Your task to perform on an android device: Search for vegetarian restaurants on Maps Image 0: 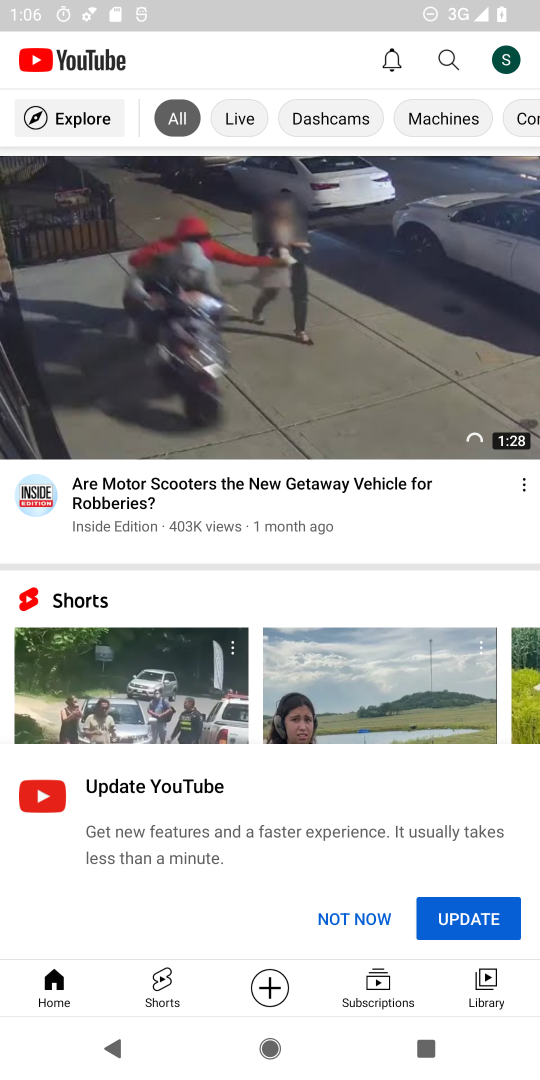
Step 0: press home button
Your task to perform on an android device: Search for vegetarian restaurants on Maps Image 1: 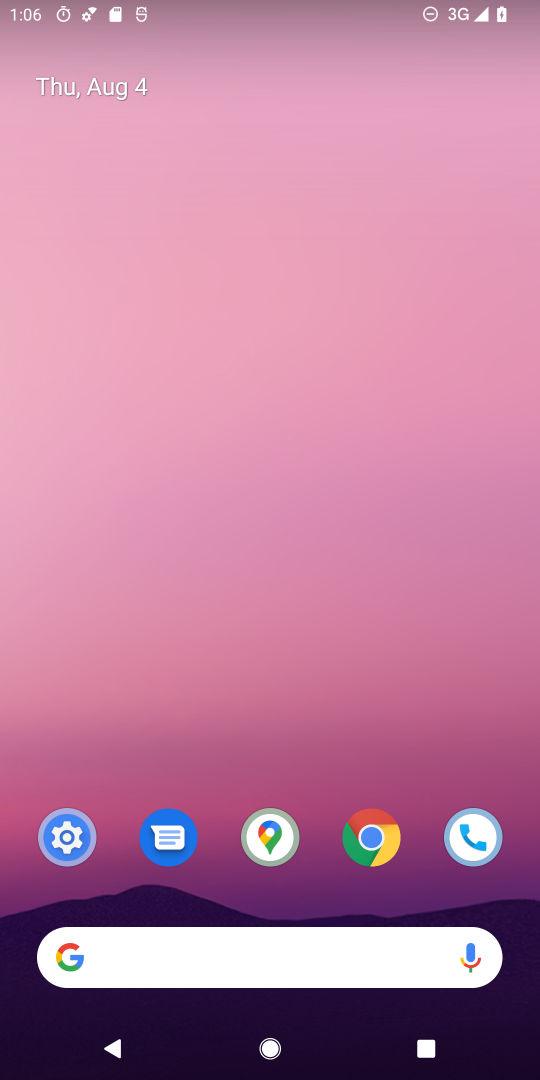
Step 1: drag from (480, 890) to (221, 66)
Your task to perform on an android device: Search for vegetarian restaurants on Maps Image 2: 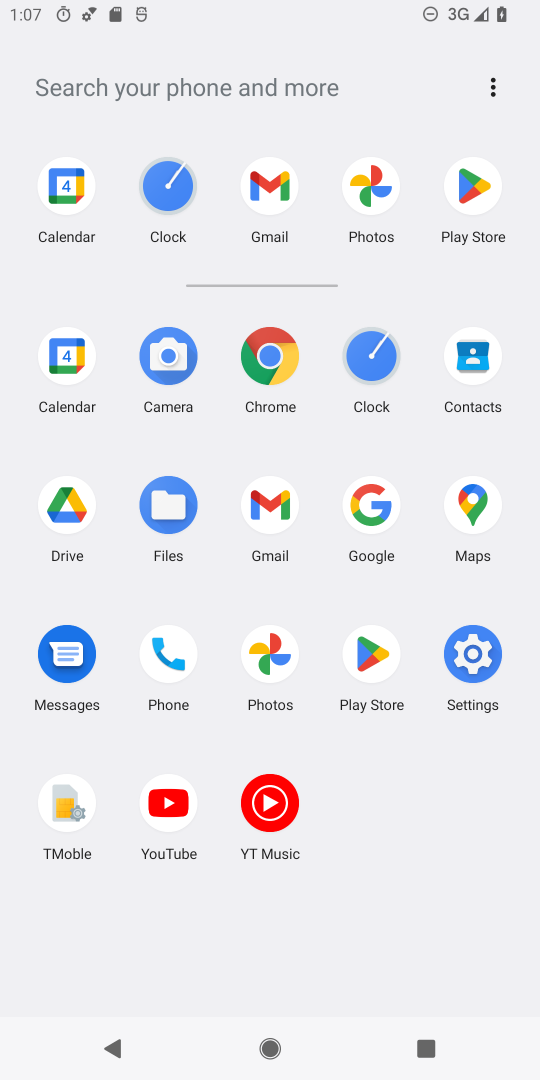
Step 2: click (485, 509)
Your task to perform on an android device: Search for vegetarian restaurants on Maps Image 3: 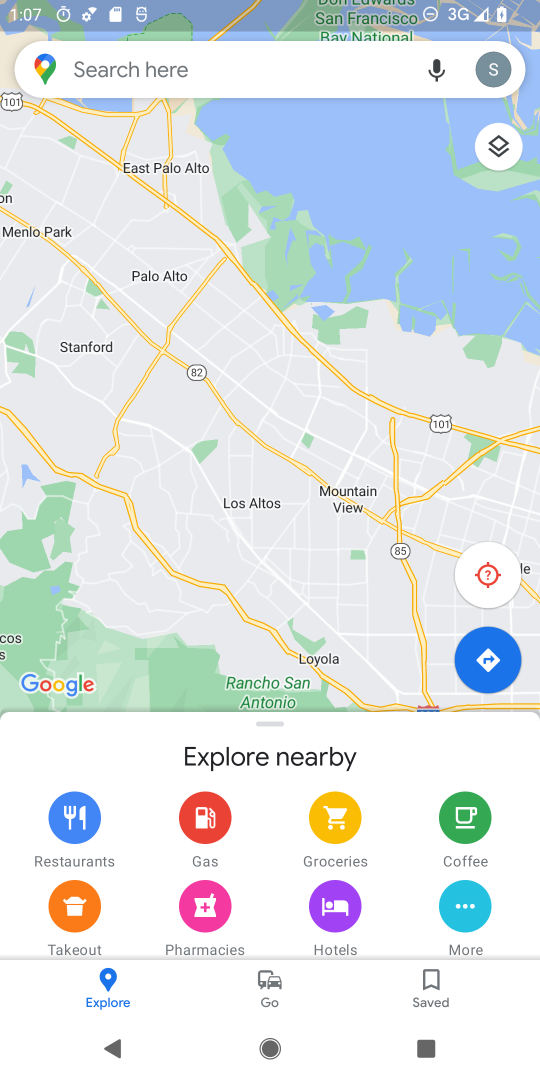
Step 3: click (180, 72)
Your task to perform on an android device: Search for vegetarian restaurants on Maps Image 4: 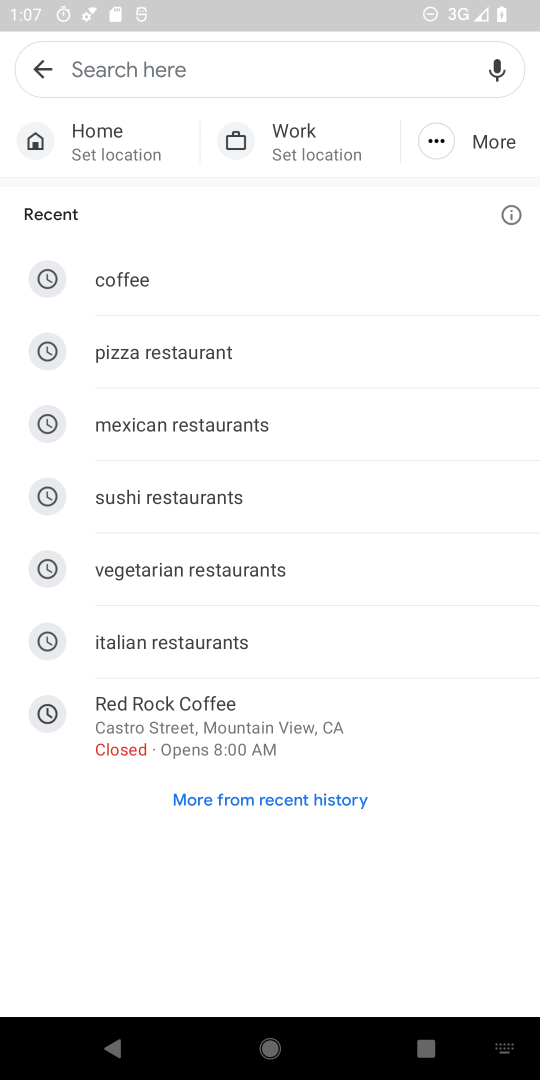
Step 4: click (177, 570)
Your task to perform on an android device: Search for vegetarian restaurants on Maps Image 5: 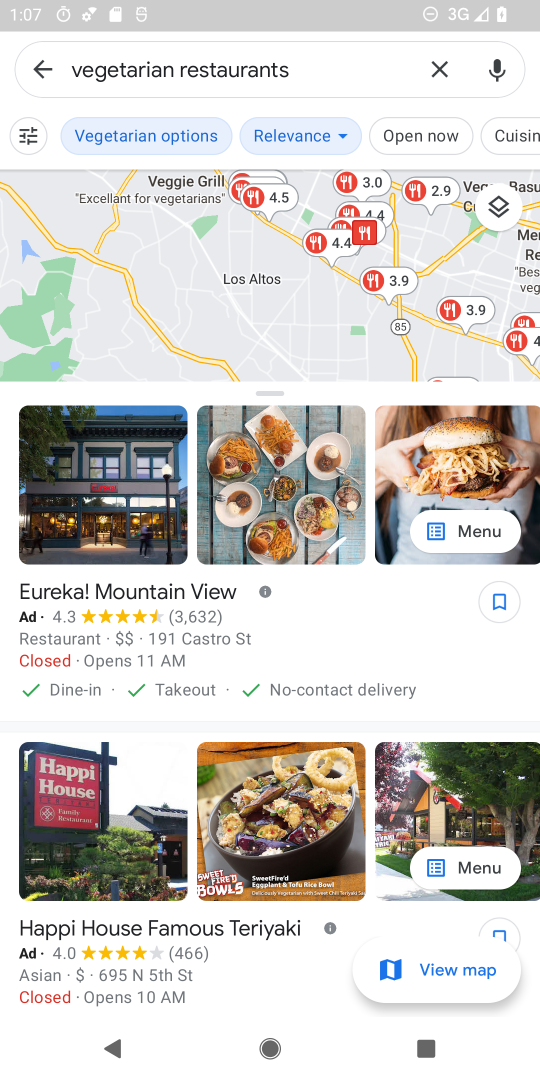
Step 5: task complete